Your task to perform on an android device: Is it going to rain this weekend? Image 0: 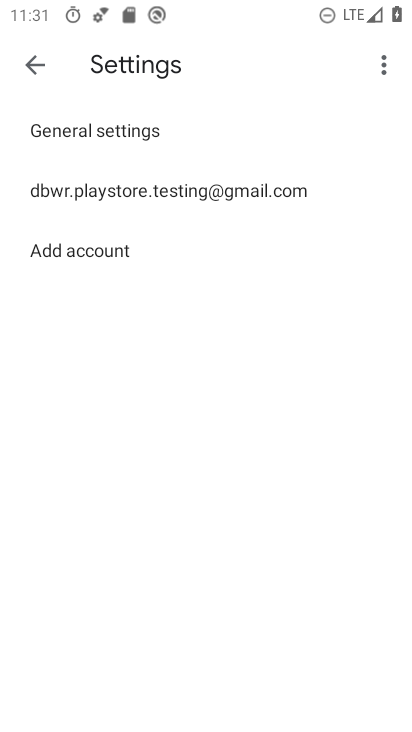
Step 0: click (220, 397)
Your task to perform on an android device: Is it going to rain this weekend? Image 1: 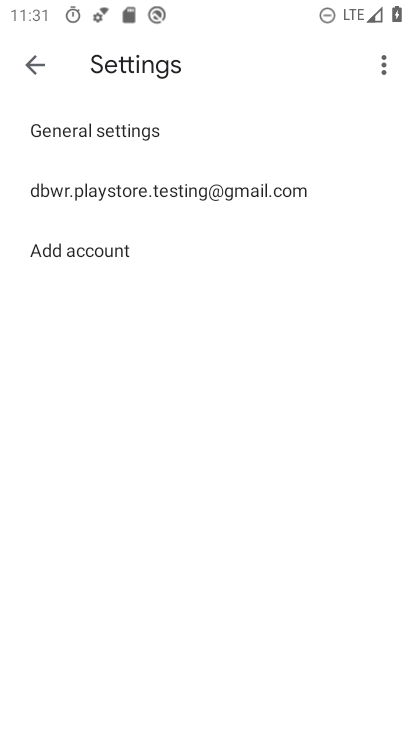
Step 1: press home button
Your task to perform on an android device: Is it going to rain this weekend? Image 2: 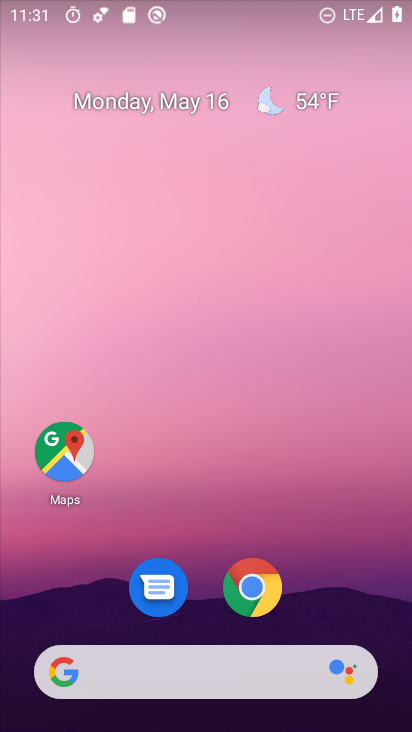
Step 2: drag from (200, 633) to (174, 9)
Your task to perform on an android device: Is it going to rain this weekend? Image 3: 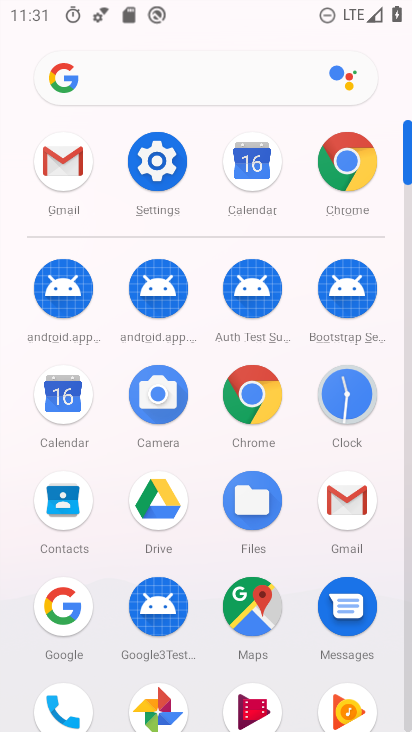
Step 3: click (198, 77)
Your task to perform on an android device: Is it going to rain this weekend? Image 4: 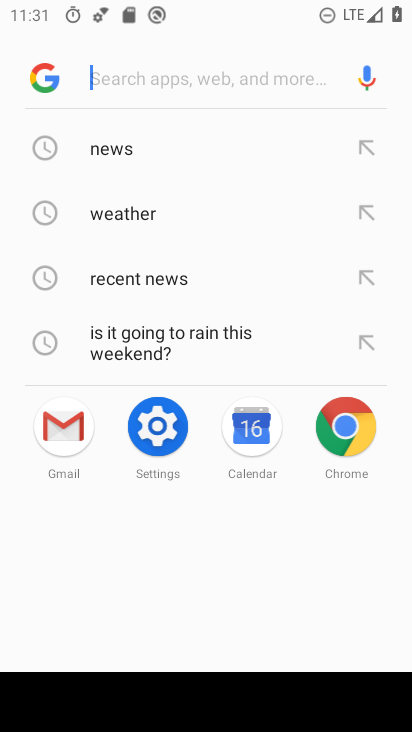
Step 4: click (169, 344)
Your task to perform on an android device: Is it going to rain this weekend? Image 5: 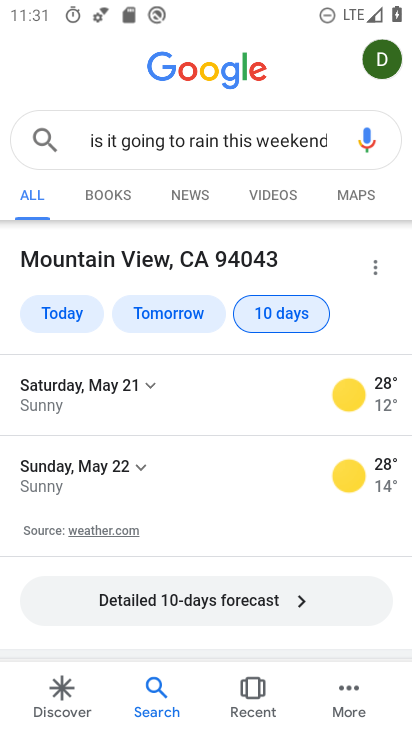
Step 5: task complete